Your task to perform on an android device: all mails in gmail Image 0: 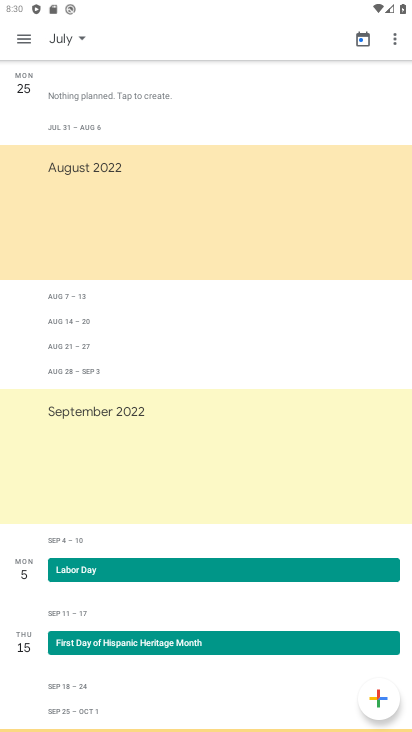
Step 0: press home button
Your task to perform on an android device: all mails in gmail Image 1: 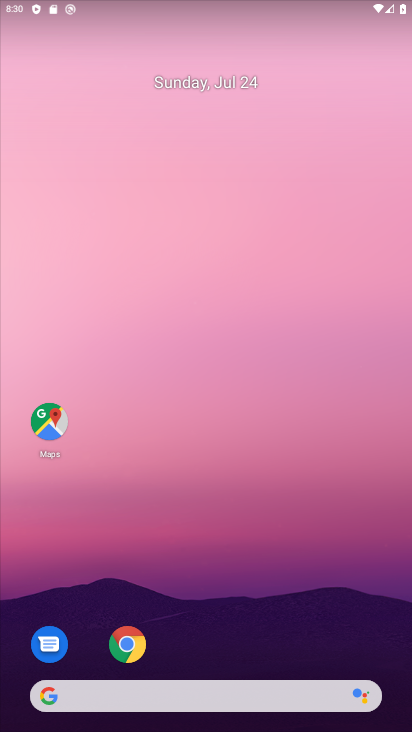
Step 1: drag from (218, 619) to (227, 101)
Your task to perform on an android device: all mails in gmail Image 2: 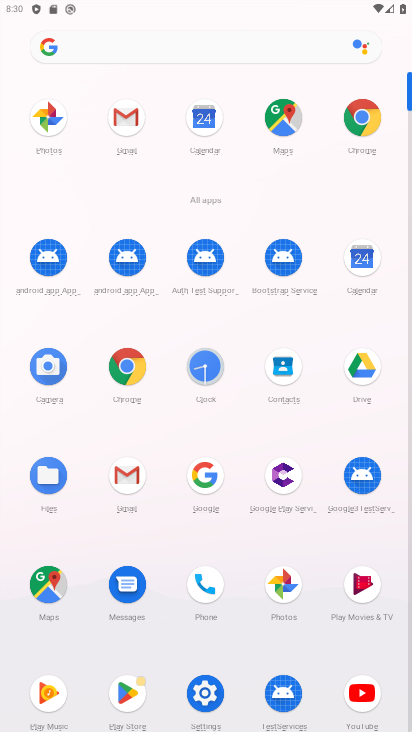
Step 2: click (115, 114)
Your task to perform on an android device: all mails in gmail Image 3: 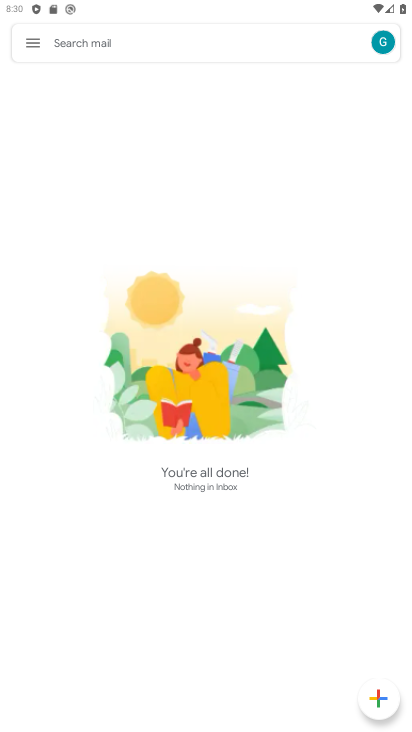
Step 3: click (29, 40)
Your task to perform on an android device: all mails in gmail Image 4: 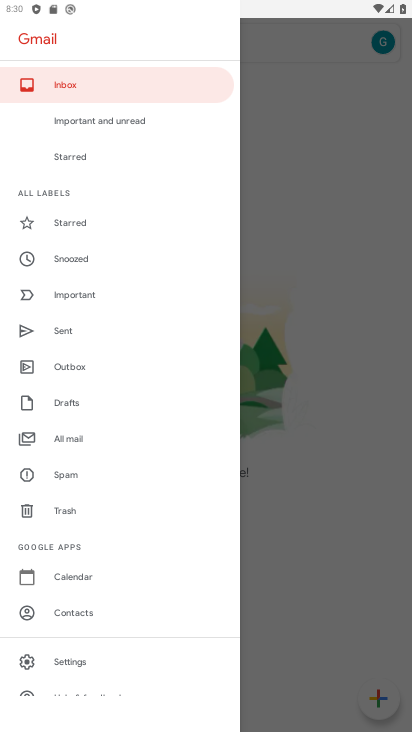
Step 4: drag from (122, 594) to (124, 335)
Your task to perform on an android device: all mails in gmail Image 5: 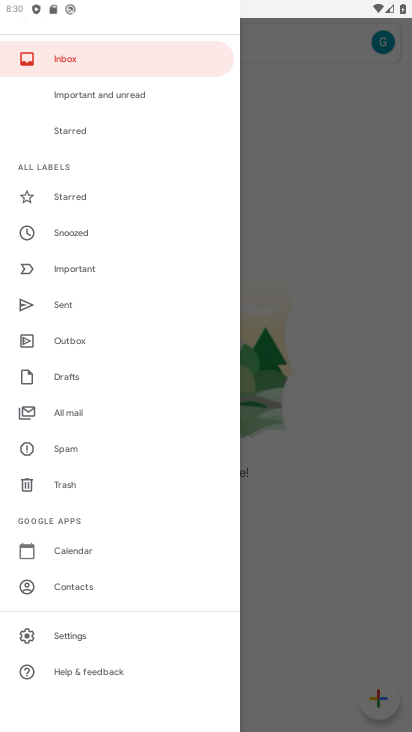
Step 5: click (61, 405)
Your task to perform on an android device: all mails in gmail Image 6: 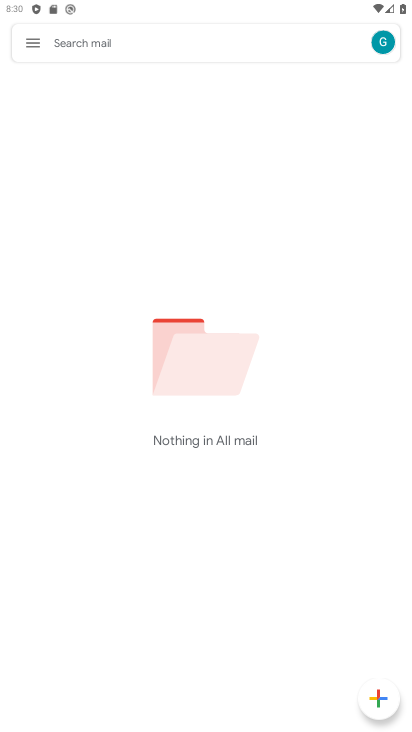
Step 6: task complete